Your task to perform on an android device: Go to Reddit.com Image 0: 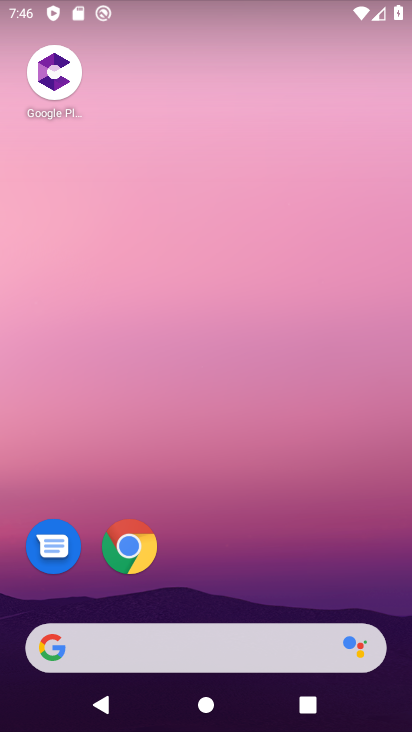
Step 0: drag from (335, 561) to (238, 251)
Your task to perform on an android device: Go to Reddit.com Image 1: 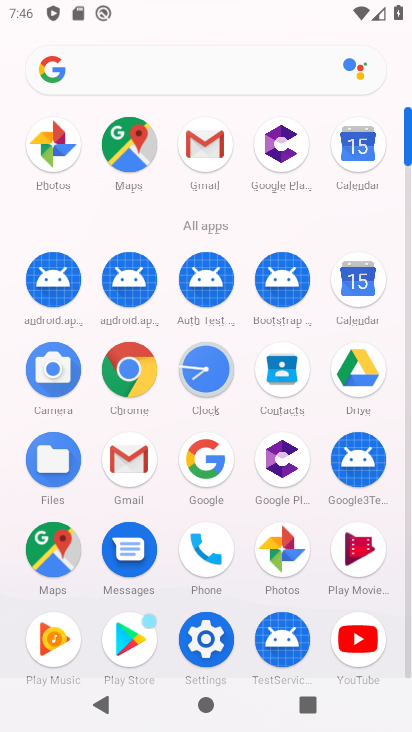
Step 1: click (117, 361)
Your task to perform on an android device: Go to Reddit.com Image 2: 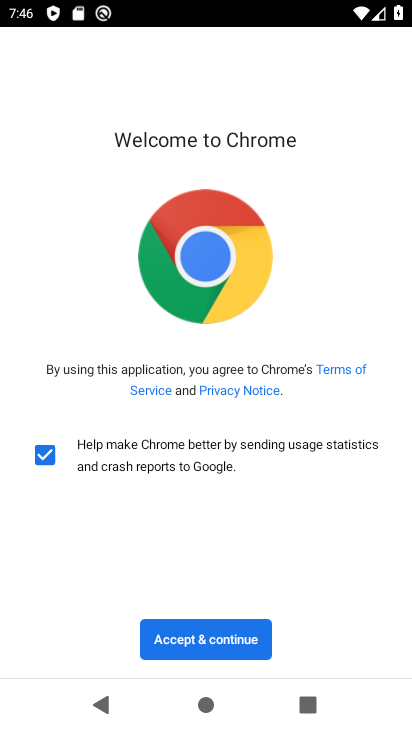
Step 2: click (199, 644)
Your task to perform on an android device: Go to Reddit.com Image 3: 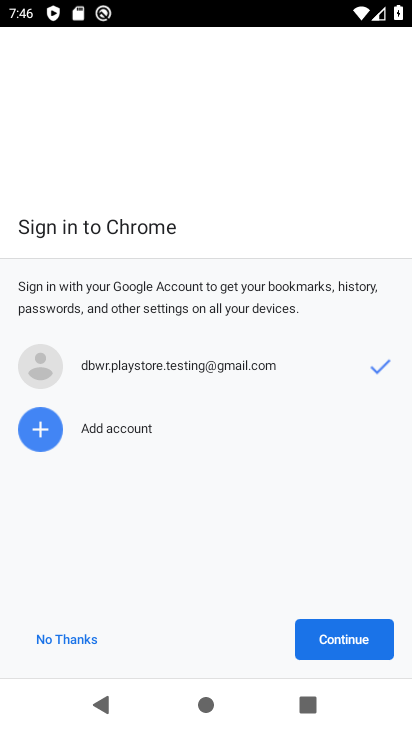
Step 3: click (344, 639)
Your task to perform on an android device: Go to Reddit.com Image 4: 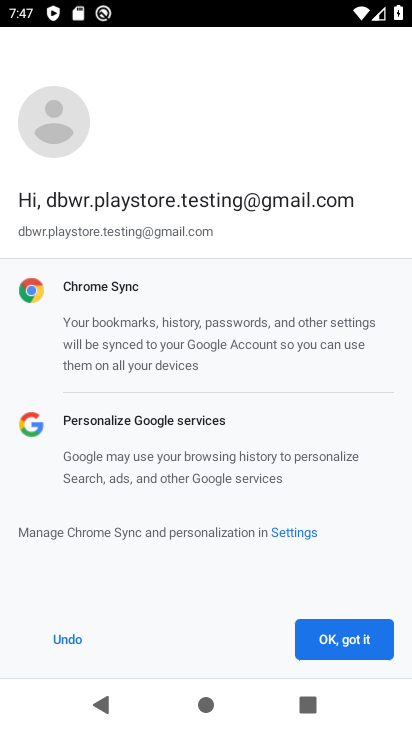
Step 4: click (356, 624)
Your task to perform on an android device: Go to Reddit.com Image 5: 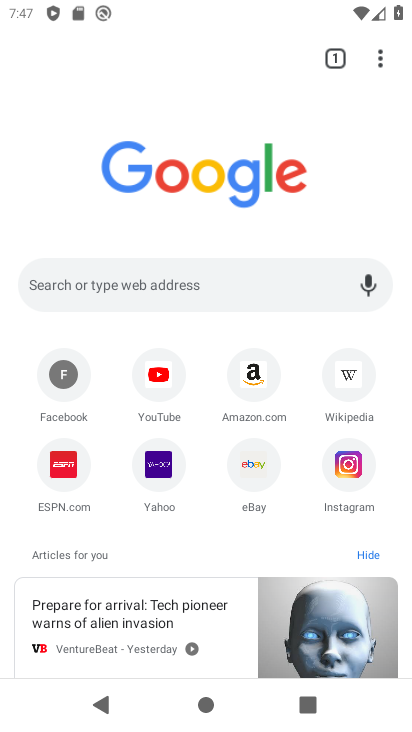
Step 5: click (81, 273)
Your task to perform on an android device: Go to Reddit.com Image 6: 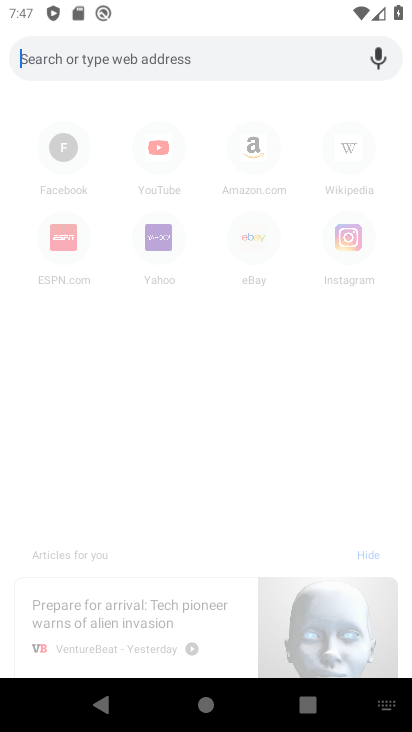
Step 6: type " Reddit.com"
Your task to perform on an android device: Go to Reddit.com Image 7: 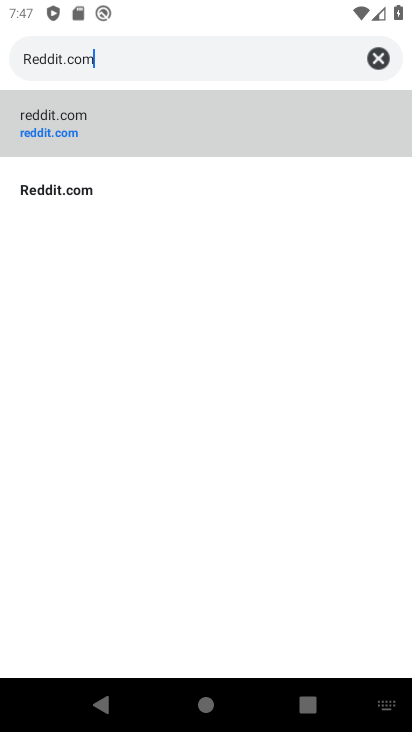
Step 7: click (52, 186)
Your task to perform on an android device: Go to Reddit.com Image 8: 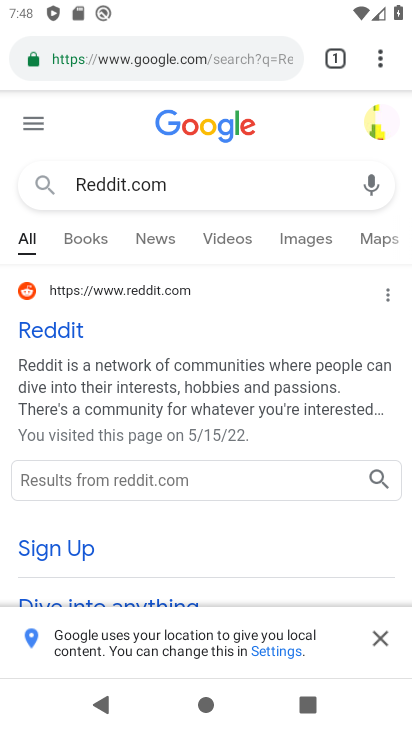
Step 8: task complete